Your task to perform on an android device: change the clock display to analog Image 0: 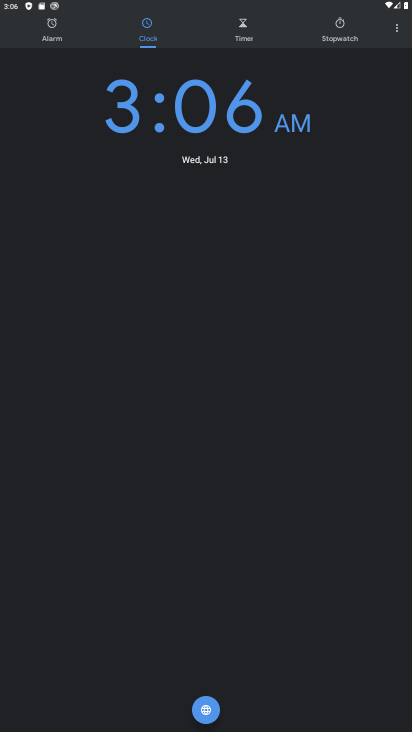
Step 0: click (398, 33)
Your task to perform on an android device: change the clock display to analog Image 1: 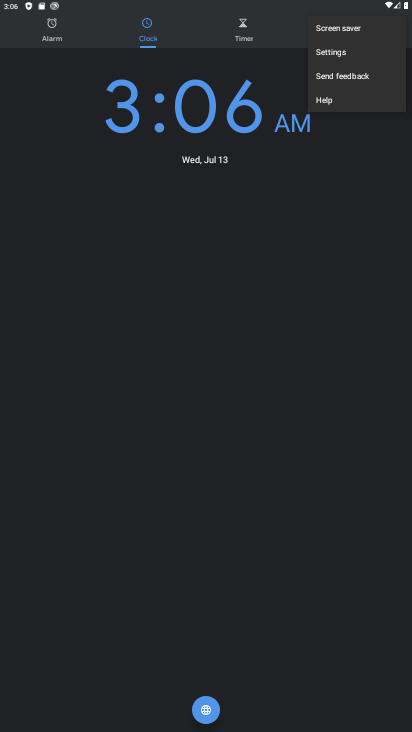
Step 1: click (329, 50)
Your task to perform on an android device: change the clock display to analog Image 2: 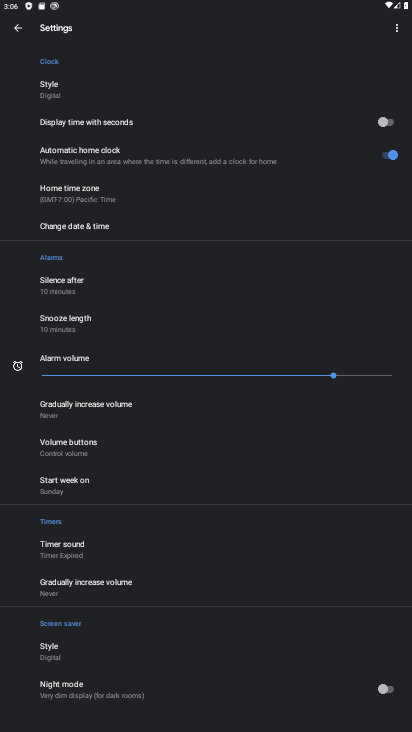
Step 2: click (56, 87)
Your task to perform on an android device: change the clock display to analog Image 3: 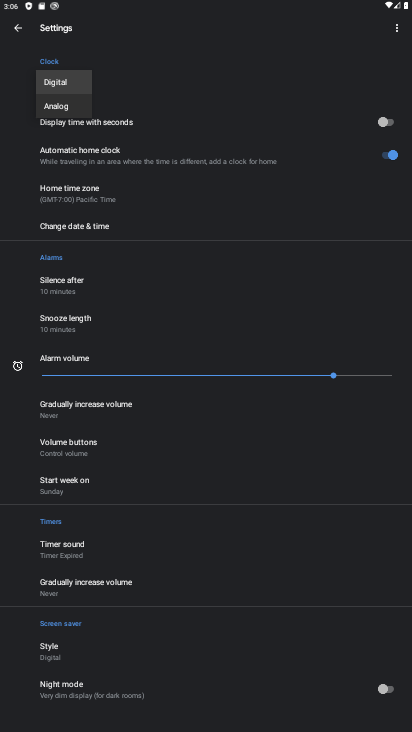
Step 3: click (69, 104)
Your task to perform on an android device: change the clock display to analog Image 4: 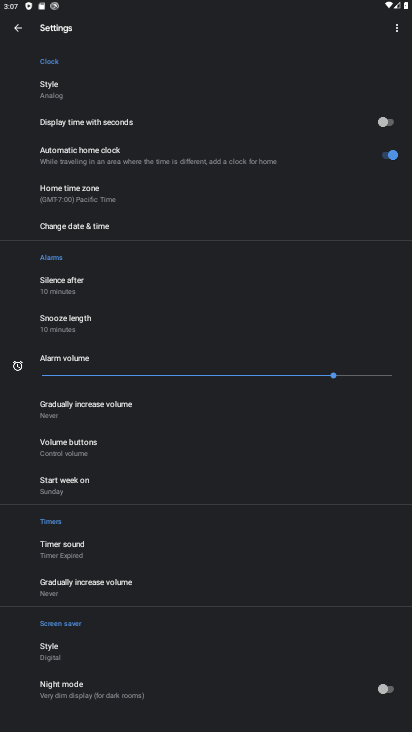
Step 4: task complete